Your task to perform on an android device: change timer sound Image 0: 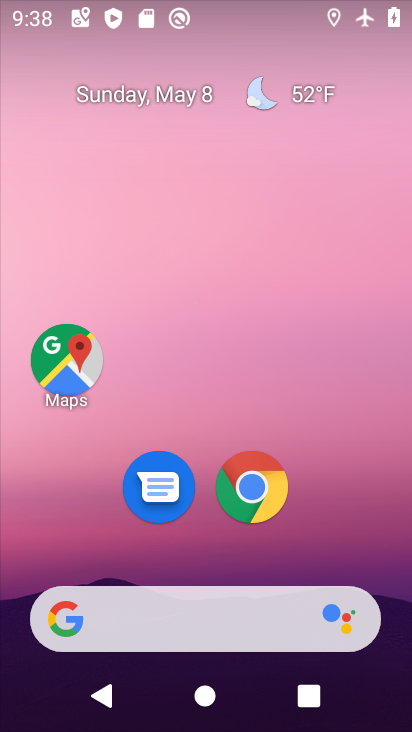
Step 0: drag from (387, 631) to (303, 15)
Your task to perform on an android device: change timer sound Image 1: 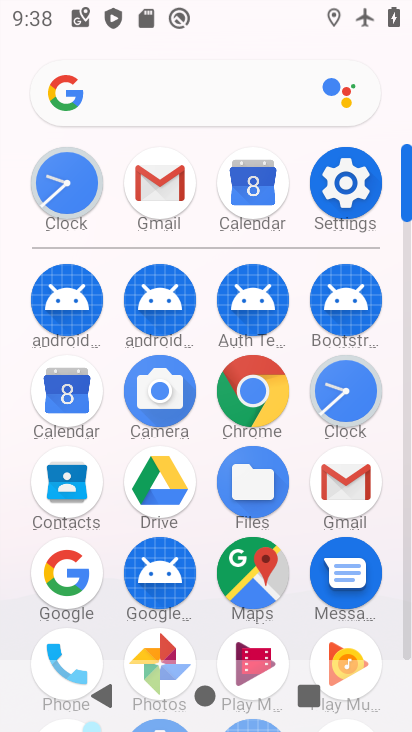
Step 1: click (348, 393)
Your task to perform on an android device: change timer sound Image 2: 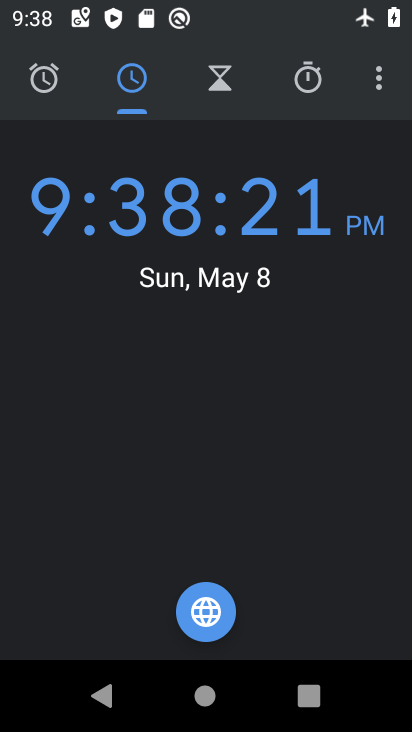
Step 2: click (372, 82)
Your task to perform on an android device: change timer sound Image 3: 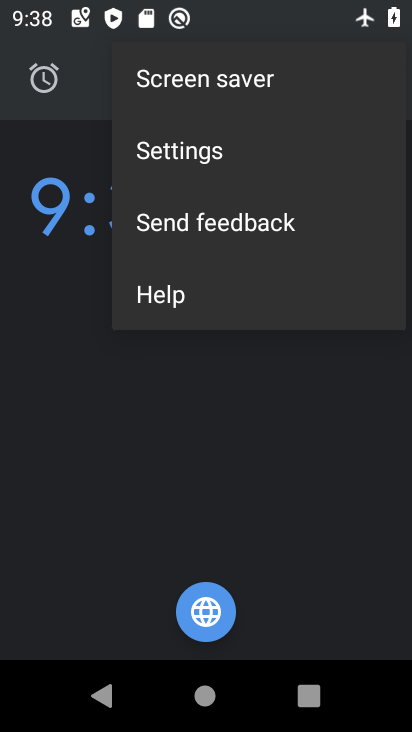
Step 3: click (285, 137)
Your task to perform on an android device: change timer sound Image 4: 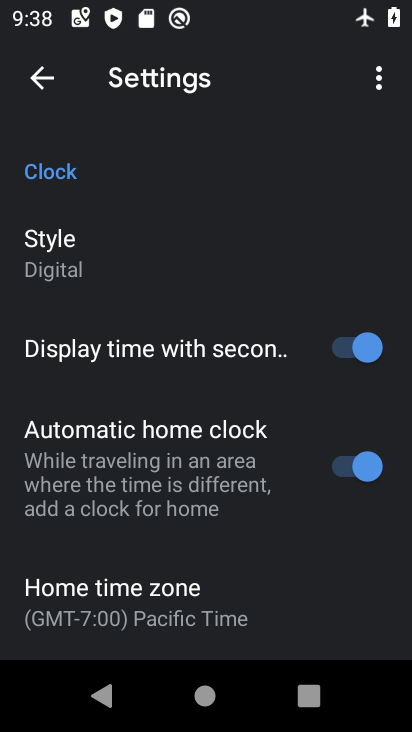
Step 4: drag from (196, 619) to (293, 146)
Your task to perform on an android device: change timer sound Image 5: 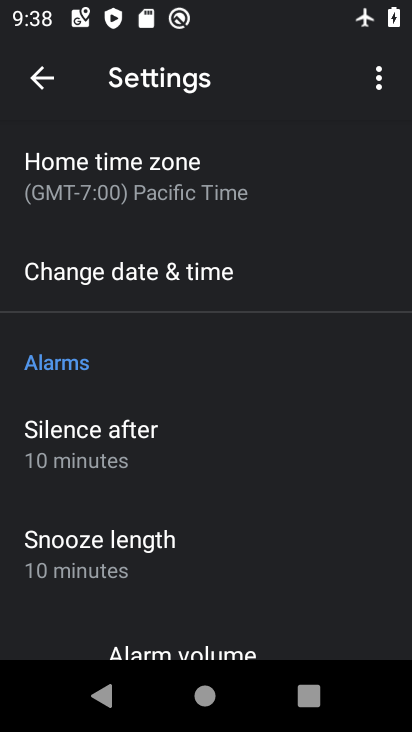
Step 5: drag from (125, 561) to (204, 71)
Your task to perform on an android device: change timer sound Image 6: 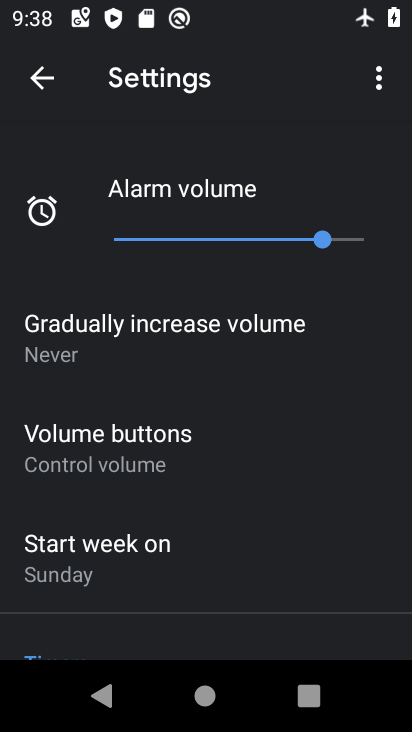
Step 6: drag from (169, 534) to (192, 174)
Your task to perform on an android device: change timer sound Image 7: 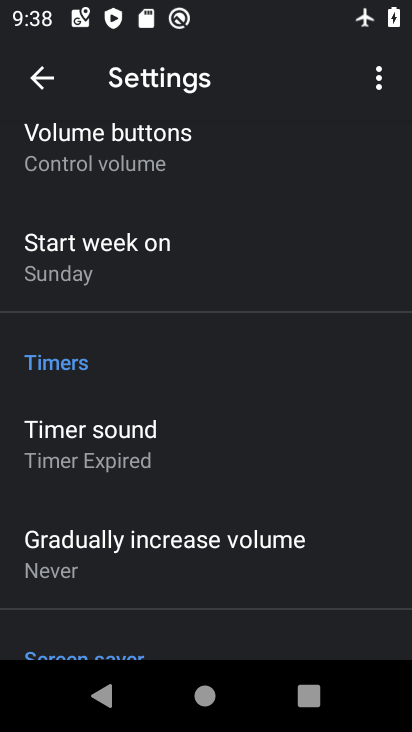
Step 7: click (157, 462)
Your task to perform on an android device: change timer sound Image 8: 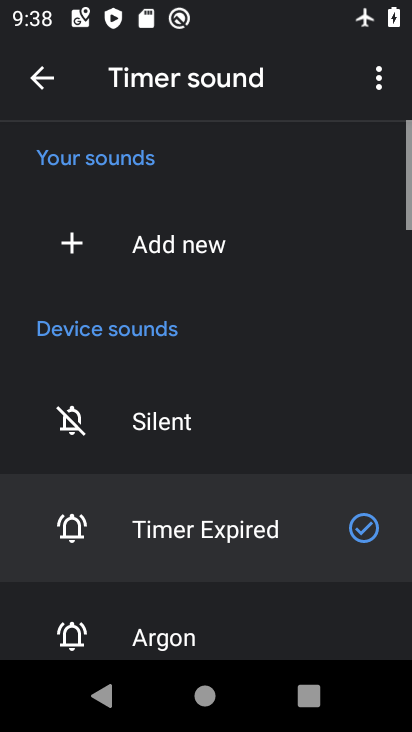
Step 8: click (201, 622)
Your task to perform on an android device: change timer sound Image 9: 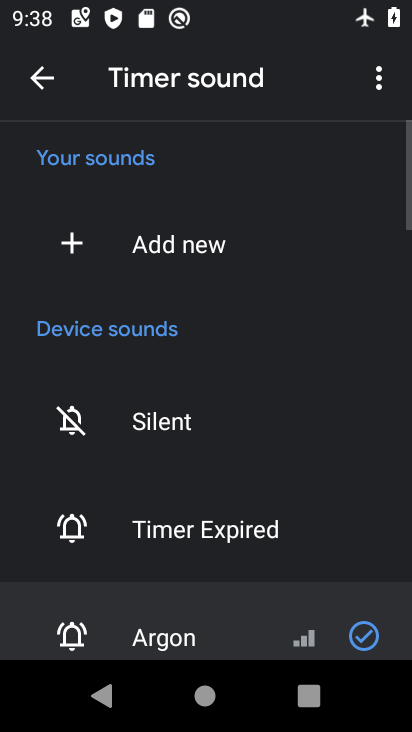
Step 9: task complete